Your task to perform on an android device: toggle notification dots Image 0: 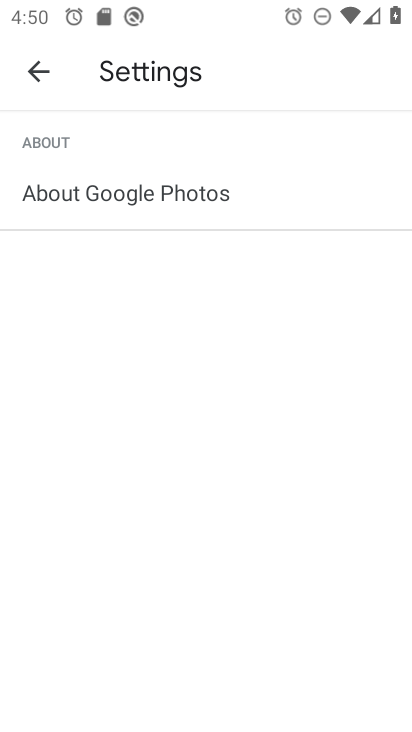
Step 0: press home button
Your task to perform on an android device: toggle notification dots Image 1: 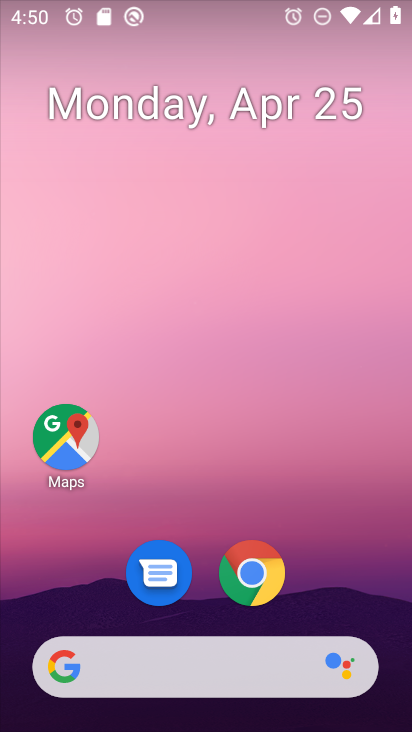
Step 1: drag from (382, 616) to (396, 17)
Your task to perform on an android device: toggle notification dots Image 2: 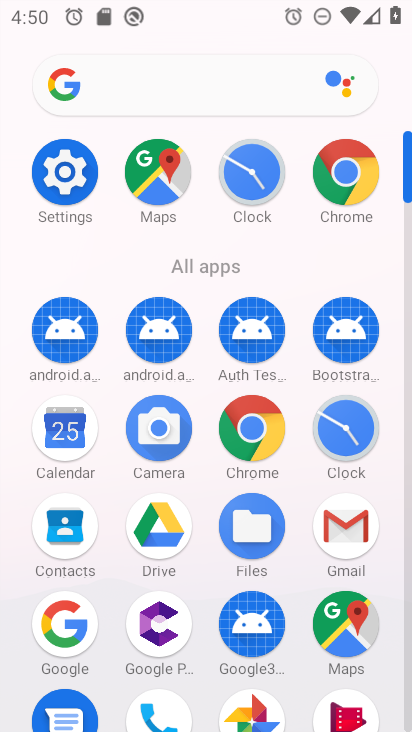
Step 2: click (57, 165)
Your task to perform on an android device: toggle notification dots Image 3: 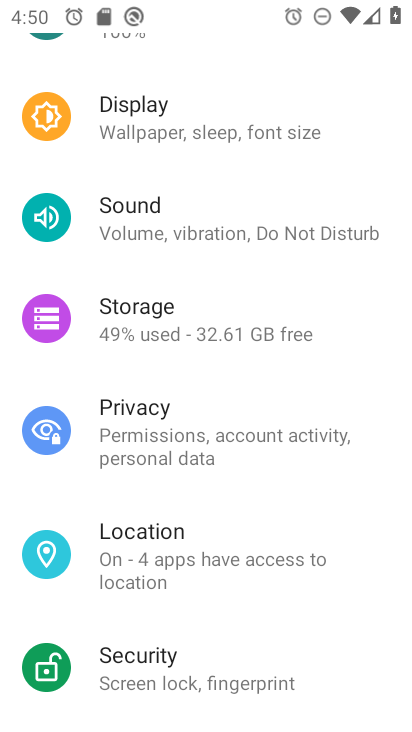
Step 3: drag from (332, 275) to (344, 495)
Your task to perform on an android device: toggle notification dots Image 4: 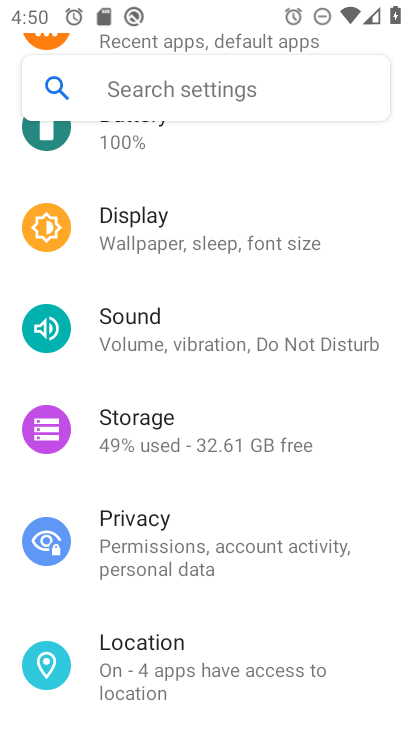
Step 4: drag from (382, 228) to (359, 560)
Your task to perform on an android device: toggle notification dots Image 5: 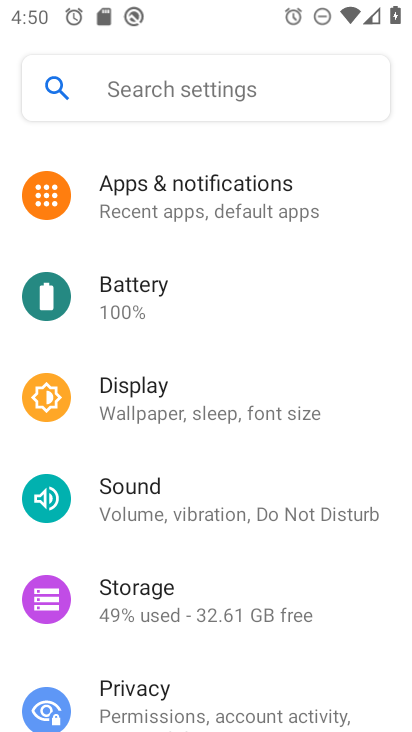
Step 5: click (160, 217)
Your task to perform on an android device: toggle notification dots Image 6: 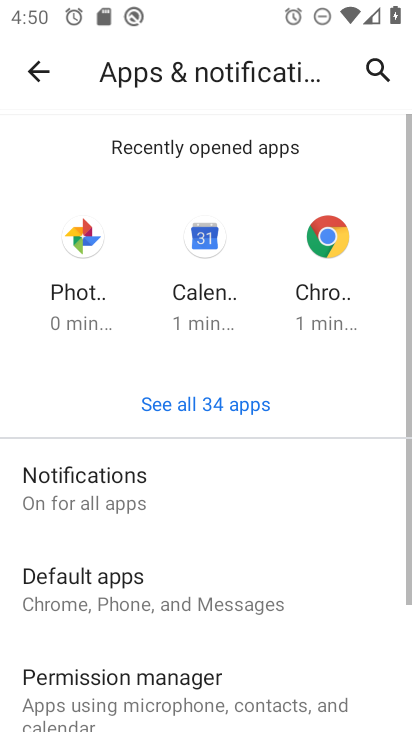
Step 6: click (101, 495)
Your task to perform on an android device: toggle notification dots Image 7: 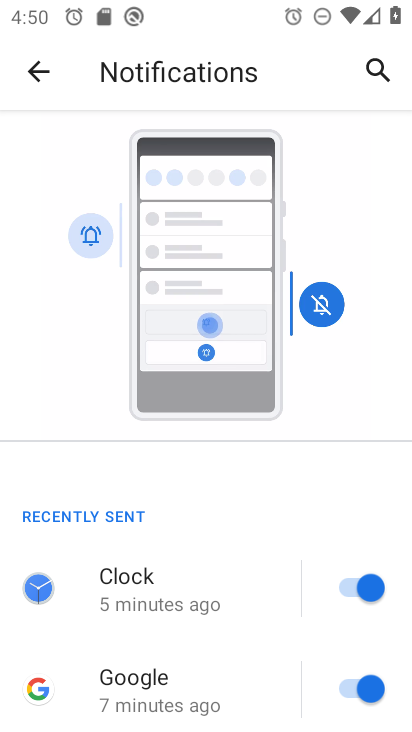
Step 7: drag from (224, 651) to (255, 91)
Your task to perform on an android device: toggle notification dots Image 8: 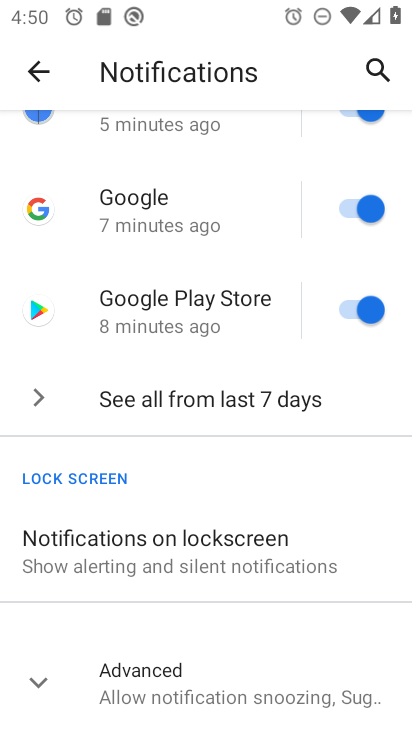
Step 8: click (37, 686)
Your task to perform on an android device: toggle notification dots Image 9: 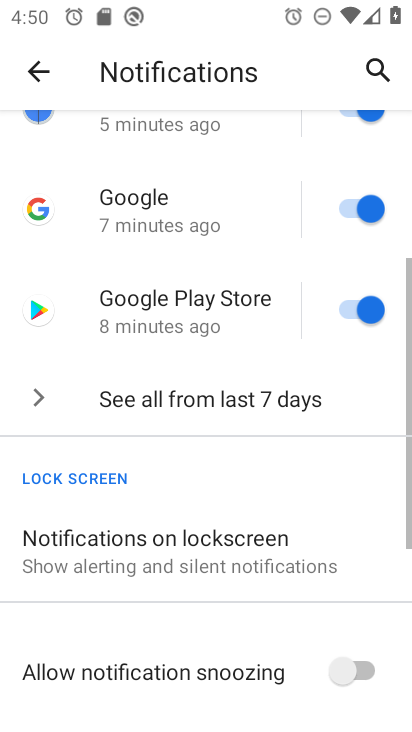
Step 9: drag from (191, 652) to (196, 185)
Your task to perform on an android device: toggle notification dots Image 10: 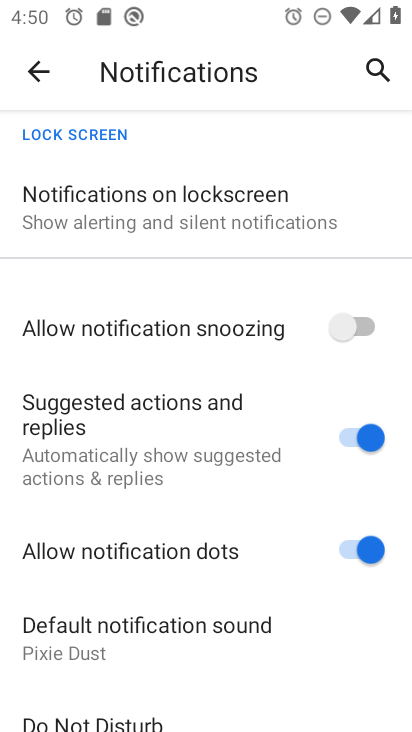
Step 10: click (359, 550)
Your task to perform on an android device: toggle notification dots Image 11: 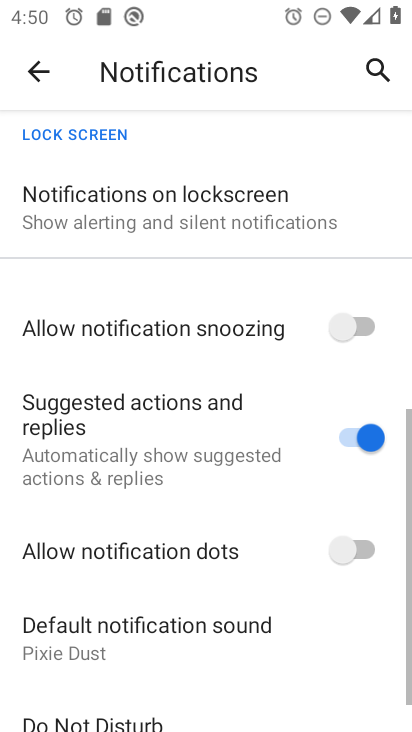
Step 11: task complete